Your task to perform on an android device: see creations saved in the google photos Image 0: 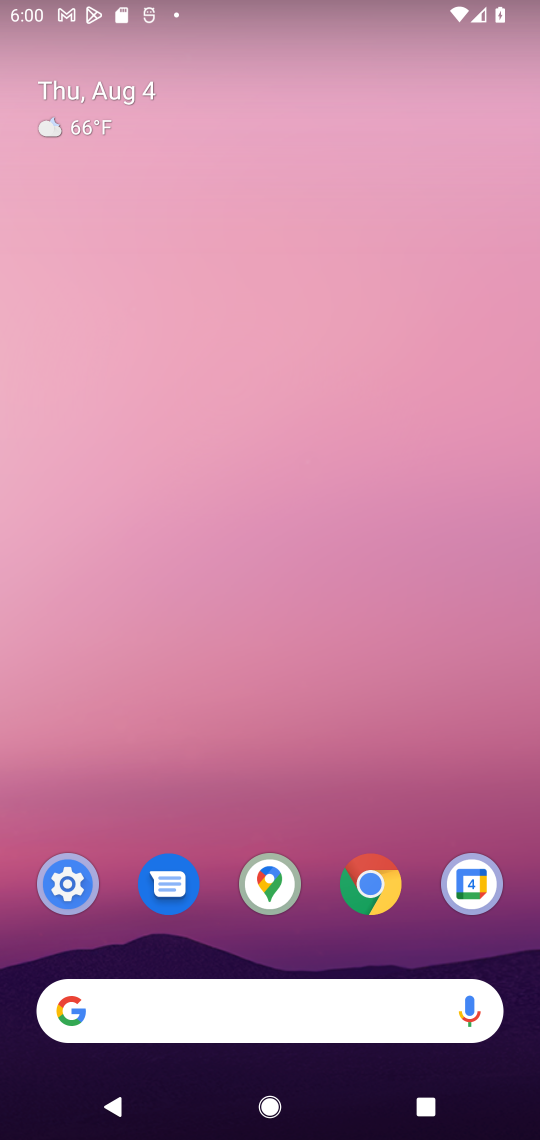
Step 0: drag from (339, 963) to (70, 239)
Your task to perform on an android device: see creations saved in the google photos Image 1: 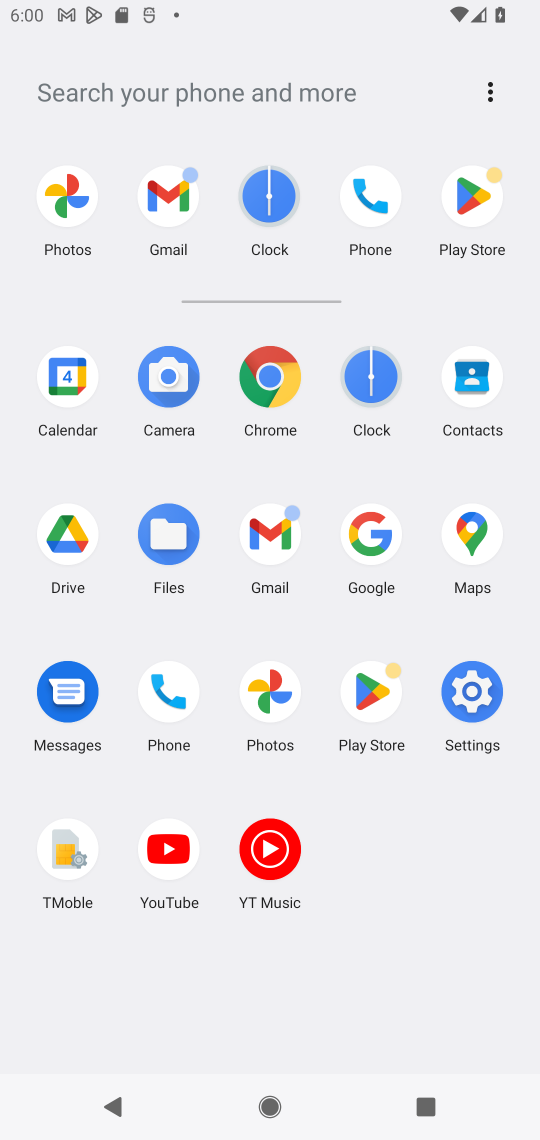
Step 1: click (280, 707)
Your task to perform on an android device: see creations saved in the google photos Image 2: 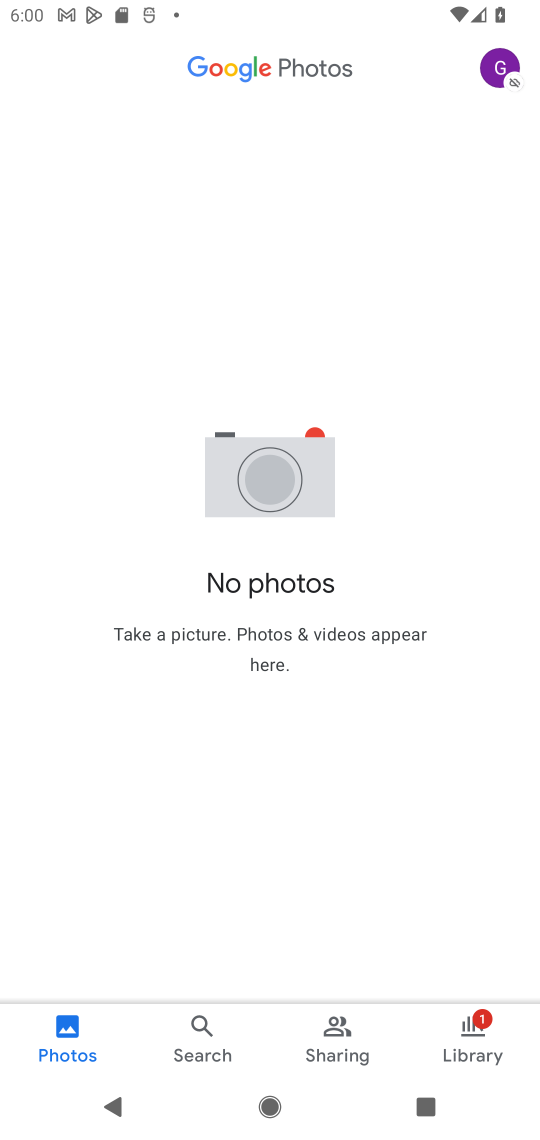
Step 2: task complete